Your task to perform on an android device: Open maps Image 0: 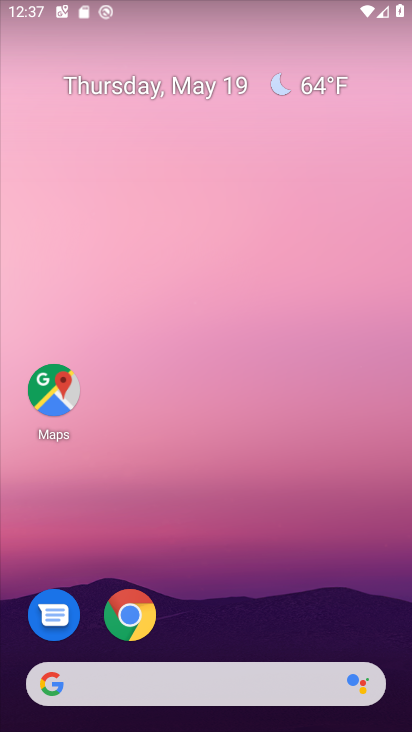
Step 0: click (51, 383)
Your task to perform on an android device: Open maps Image 1: 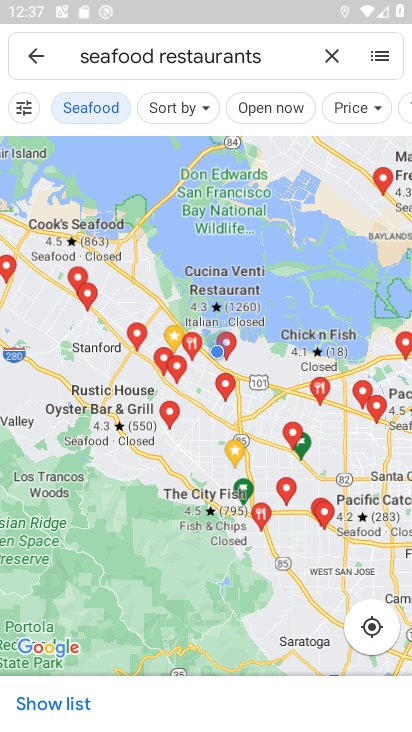
Step 1: click (256, 350)
Your task to perform on an android device: Open maps Image 2: 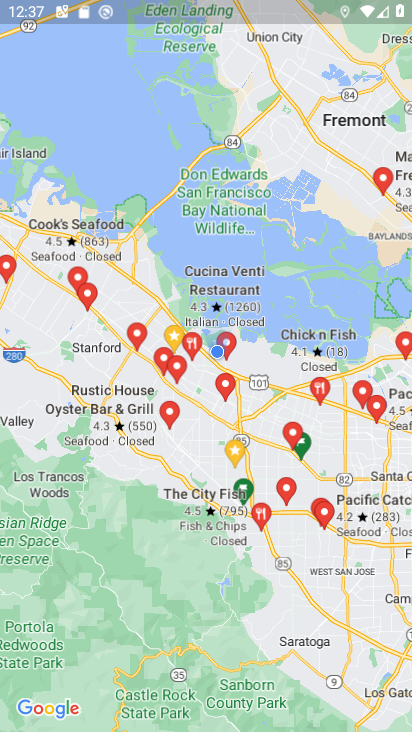
Step 2: task complete